Your task to perform on an android device: turn on priority inbox in the gmail app Image 0: 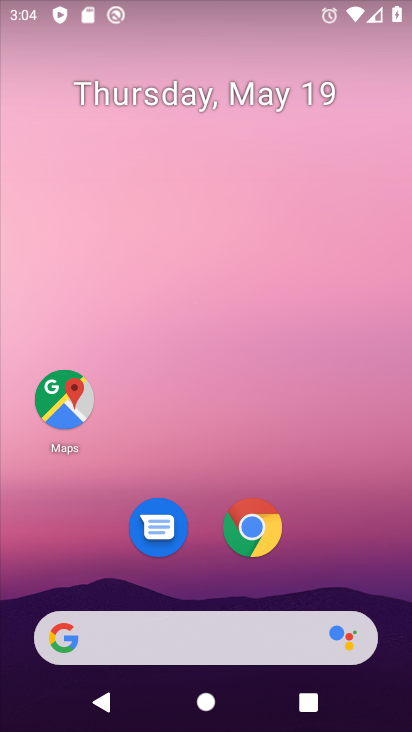
Step 0: drag from (206, 585) to (303, 37)
Your task to perform on an android device: turn on priority inbox in the gmail app Image 1: 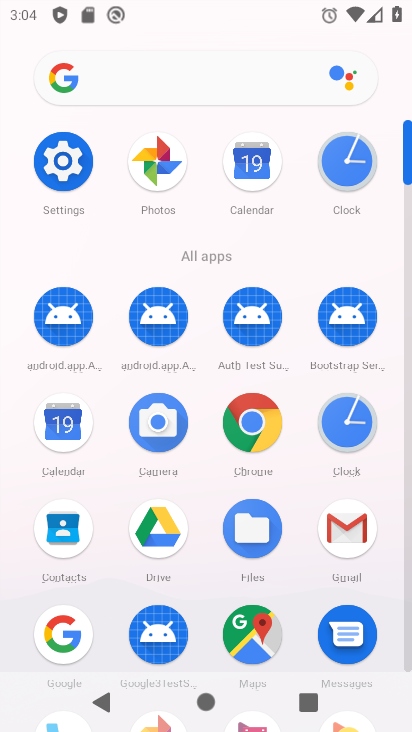
Step 1: click (320, 527)
Your task to perform on an android device: turn on priority inbox in the gmail app Image 2: 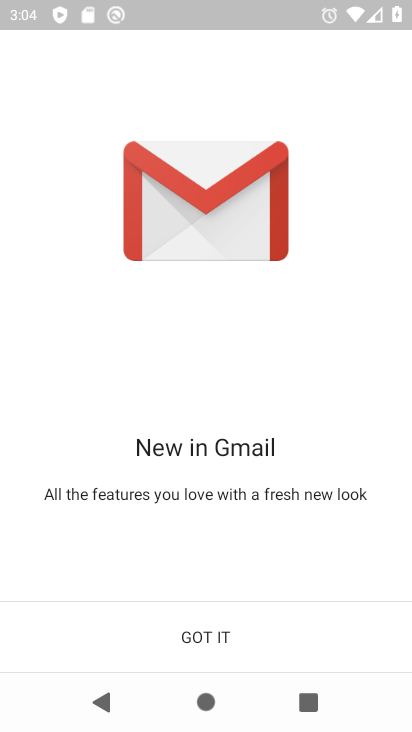
Step 2: click (192, 659)
Your task to perform on an android device: turn on priority inbox in the gmail app Image 3: 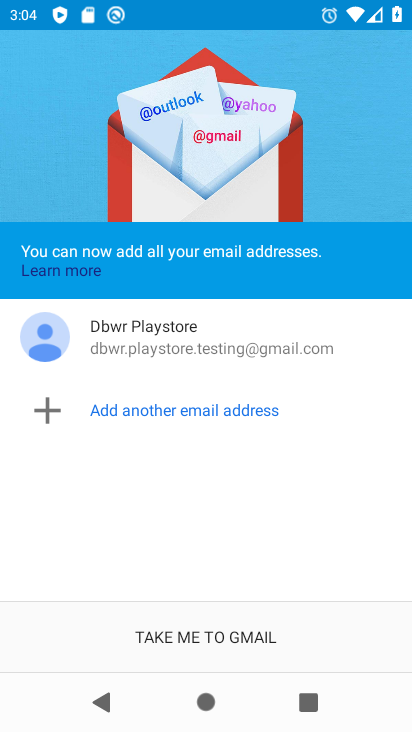
Step 3: click (242, 623)
Your task to perform on an android device: turn on priority inbox in the gmail app Image 4: 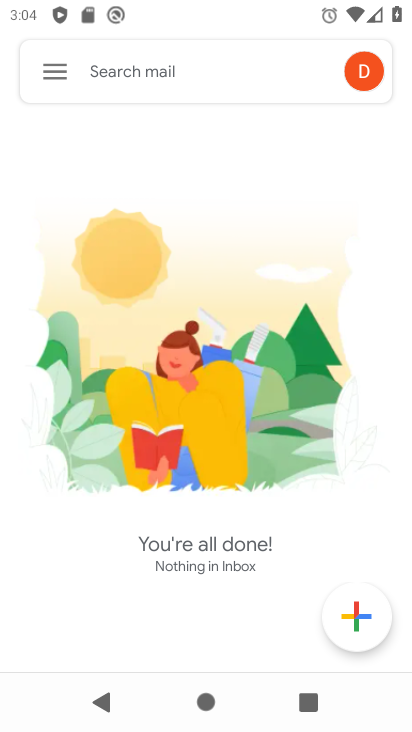
Step 4: click (71, 86)
Your task to perform on an android device: turn on priority inbox in the gmail app Image 5: 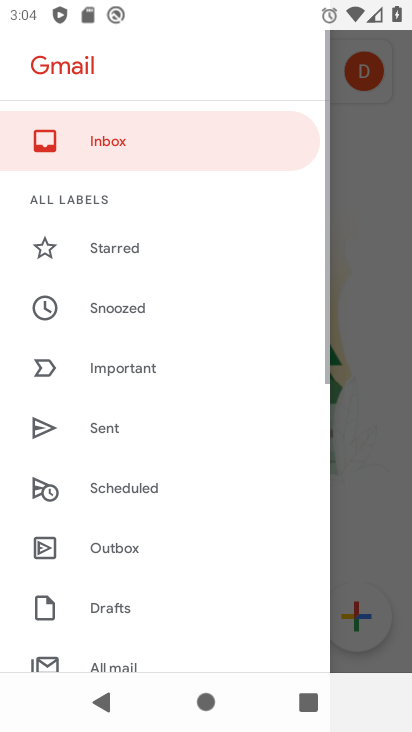
Step 5: drag from (129, 630) to (254, 71)
Your task to perform on an android device: turn on priority inbox in the gmail app Image 6: 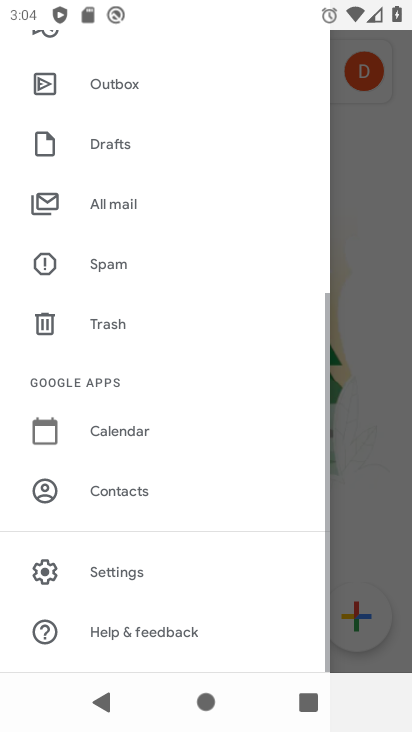
Step 6: click (139, 574)
Your task to perform on an android device: turn on priority inbox in the gmail app Image 7: 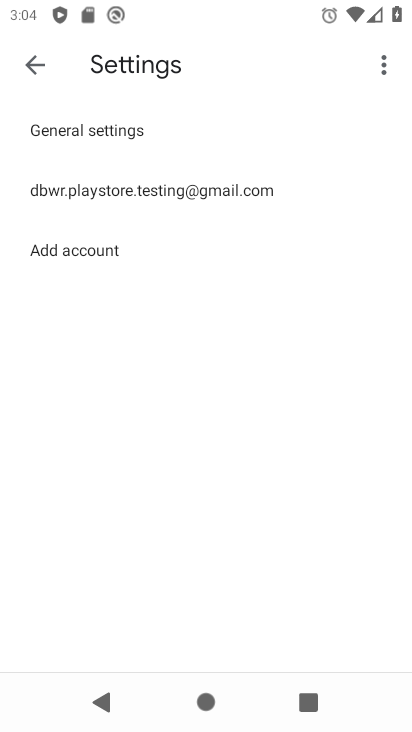
Step 7: click (151, 190)
Your task to perform on an android device: turn on priority inbox in the gmail app Image 8: 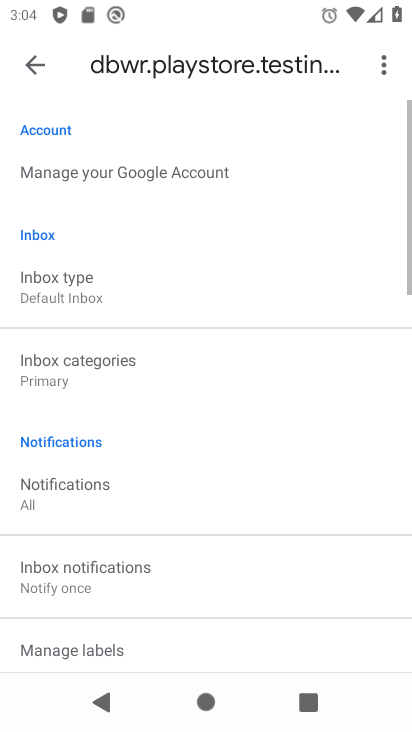
Step 8: click (88, 280)
Your task to perform on an android device: turn on priority inbox in the gmail app Image 9: 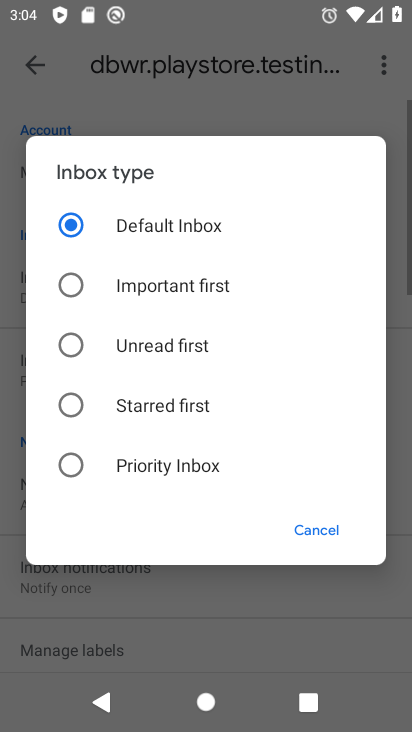
Step 9: click (70, 470)
Your task to perform on an android device: turn on priority inbox in the gmail app Image 10: 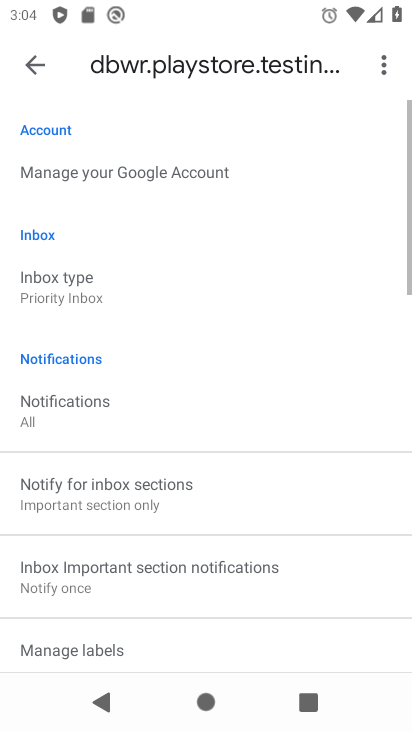
Step 10: task complete